Your task to perform on an android device: Open sound settings Image 0: 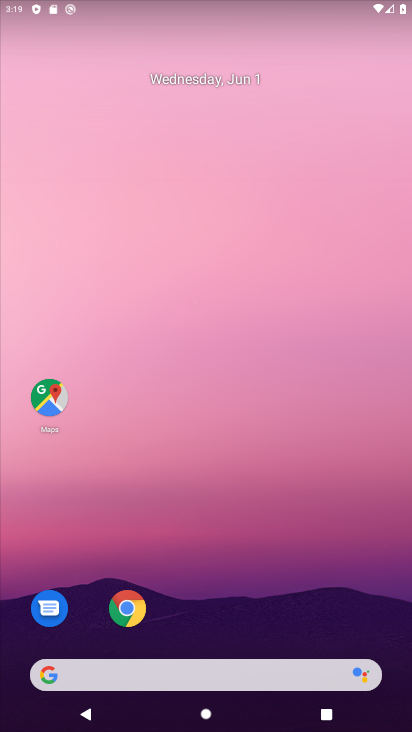
Step 0: drag from (210, 671) to (224, 160)
Your task to perform on an android device: Open sound settings Image 1: 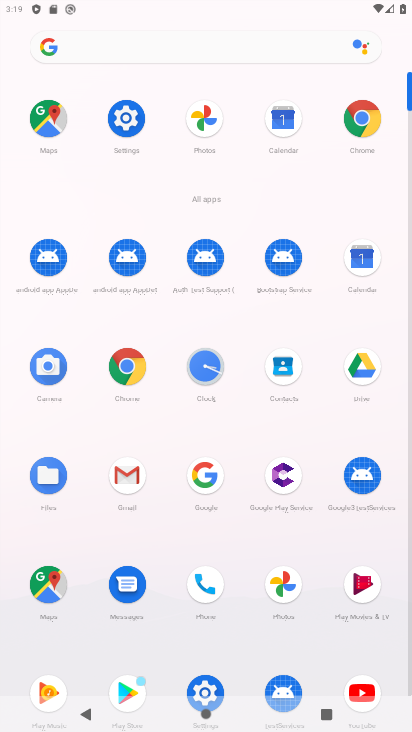
Step 1: click (112, 118)
Your task to perform on an android device: Open sound settings Image 2: 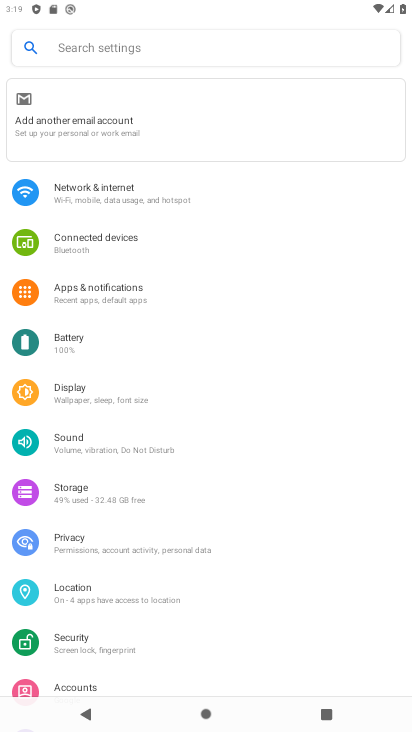
Step 2: click (88, 446)
Your task to perform on an android device: Open sound settings Image 3: 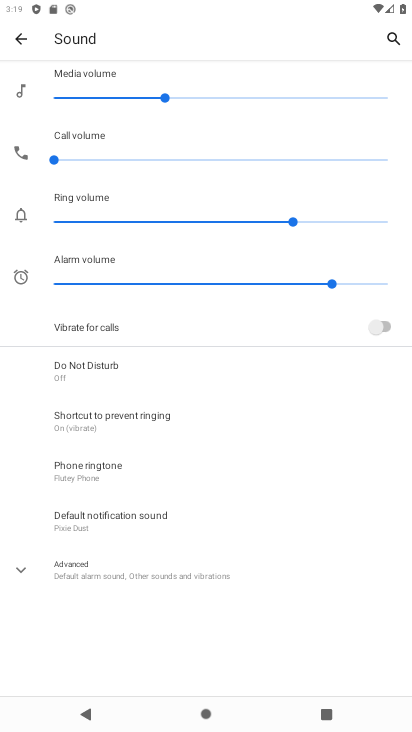
Step 3: task complete